Your task to perform on an android device: manage bookmarks in the chrome app Image 0: 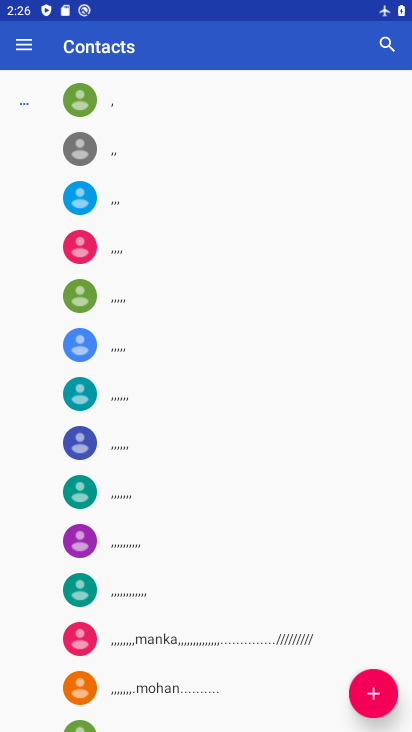
Step 0: press home button
Your task to perform on an android device: manage bookmarks in the chrome app Image 1: 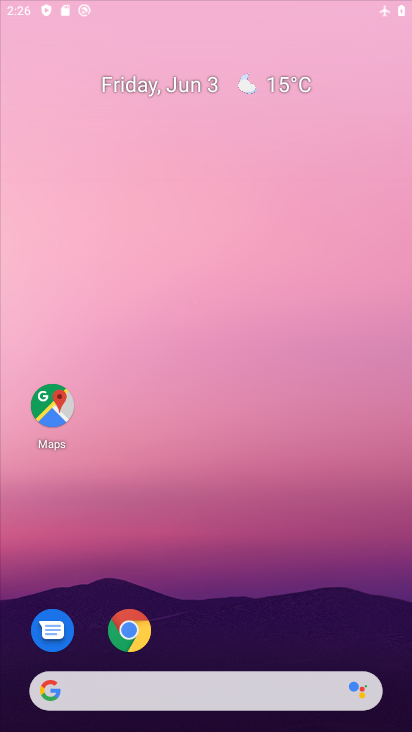
Step 1: drag from (318, 671) to (249, 47)
Your task to perform on an android device: manage bookmarks in the chrome app Image 2: 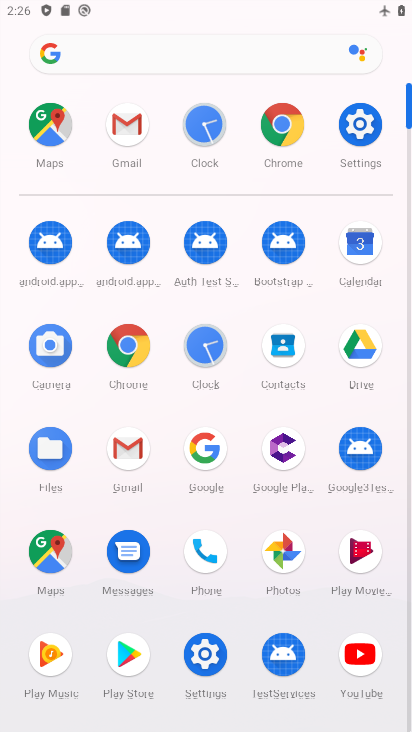
Step 2: click (286, 138)
Your task to perform on an android device: manage bookmarks in the chrome app Image 3: 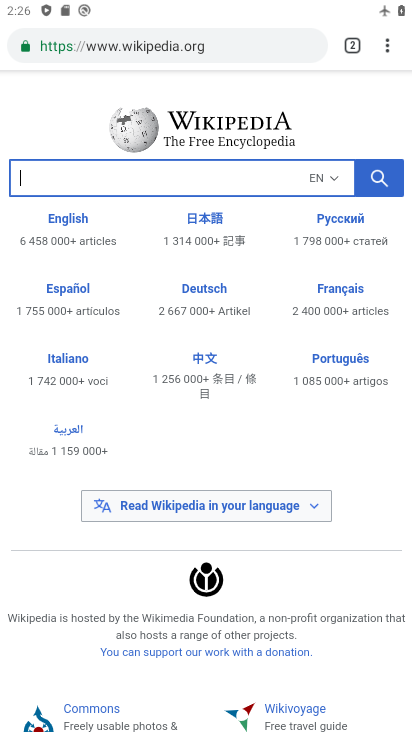
Step 3: drag from (348, 0) to (244, 684)
Your task to perform on an android device: manage bookmarks in the chrome app Image 4: 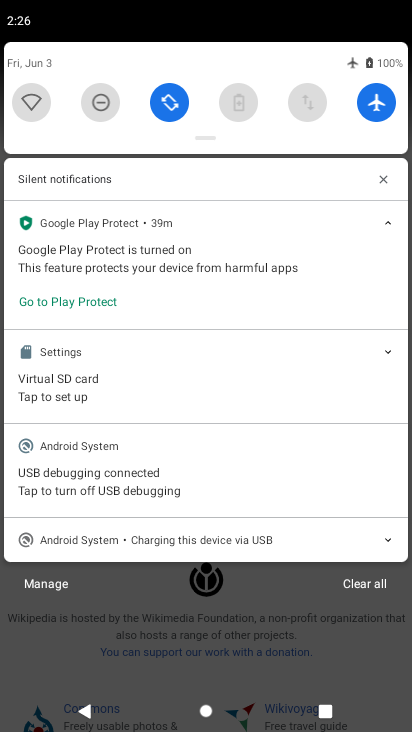
Step 4: click (366, 123)
Your task to perform on an android device: manage bookmarks in the chrome app Image 5: 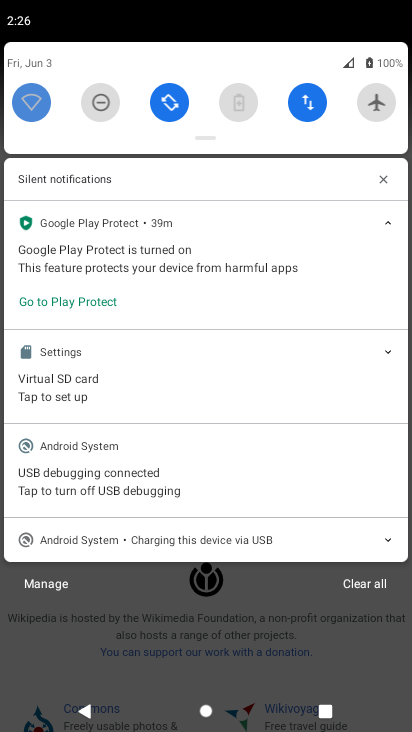
Step 5: drag from (254, 635) to (278, 181)
Your task to perform on an android device: manage bookmarks in the chrome app Image 6: 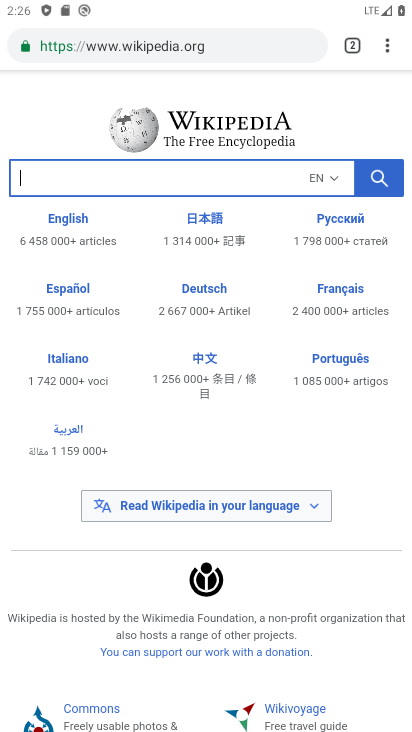
Step 6: drag from (390, 33) to (216, 176)
Your task to perform on an android device: manage bookmarks in the chrome app Image 7: 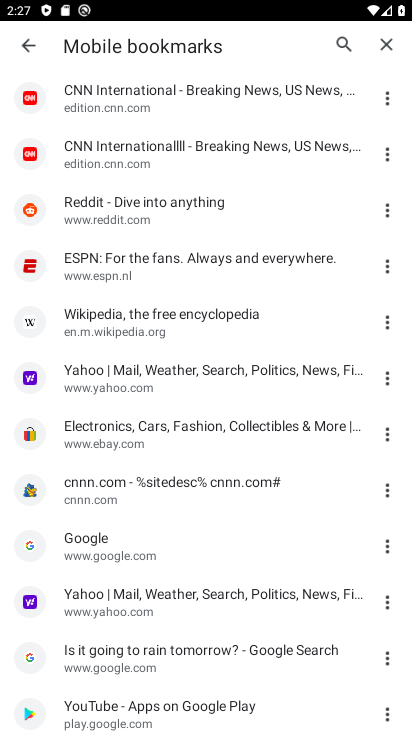
Step 7: click (390, 94)
Your task to perform on an android device: manage bookmarks in the chrome app Image 8: 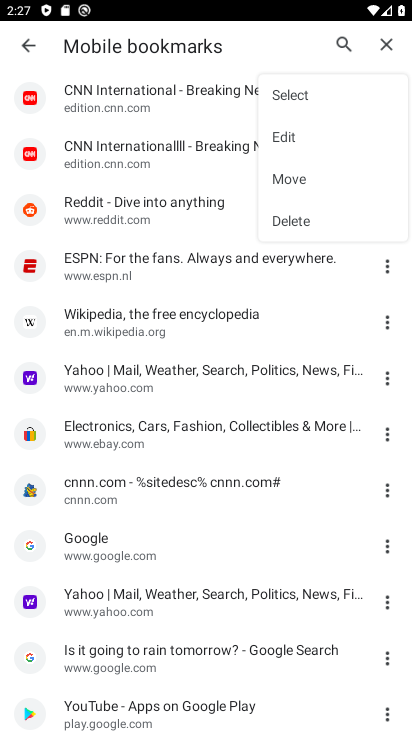
Step 8: click (282, 227)
Your task to perform on an android device: manage bookmarks in the chrome app Image 9: 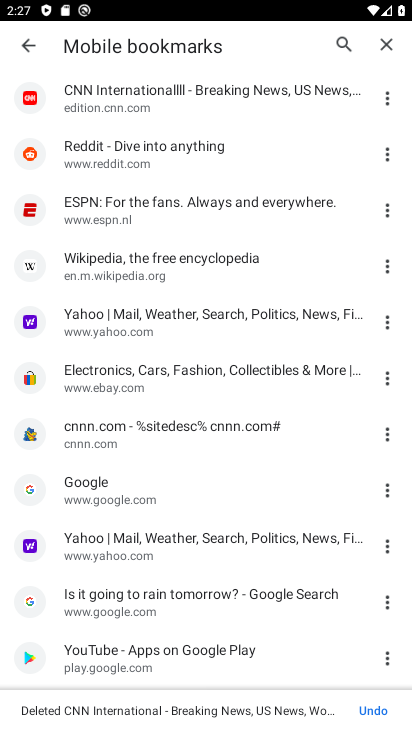
Step 9: task complete